Your task to perform on an android device: toggle airplane mode Image 0: 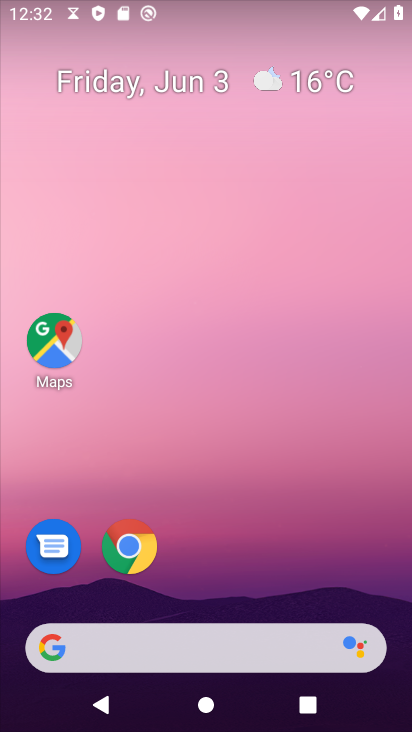
Step 0: drag from (359, 8) to (191, 627)
Your task to perform on an android device: toggle airplane mode Image 1: 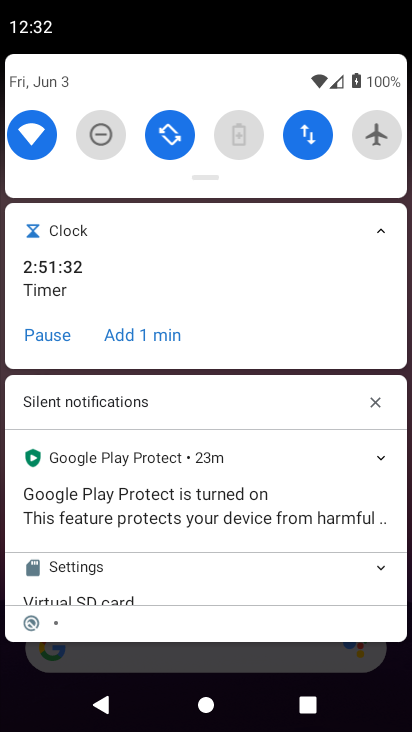
Step 1: click (370, 130)
Your task to perform on an android device: toggle airplane mode Image 2: 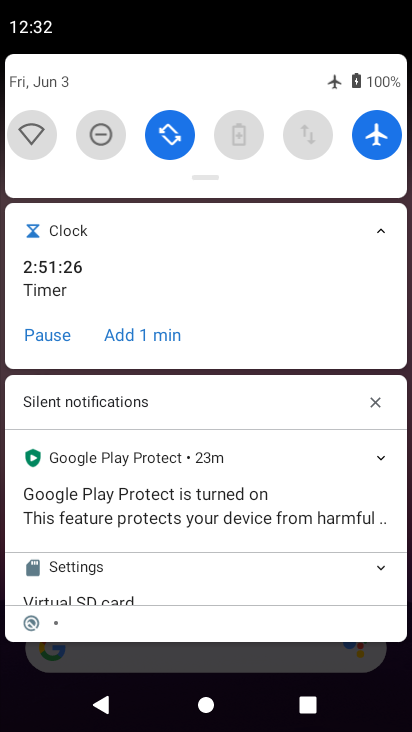
Step 2: task complete